Your task to perform on an android device: manage bookmarks in the chrome app Image 0: 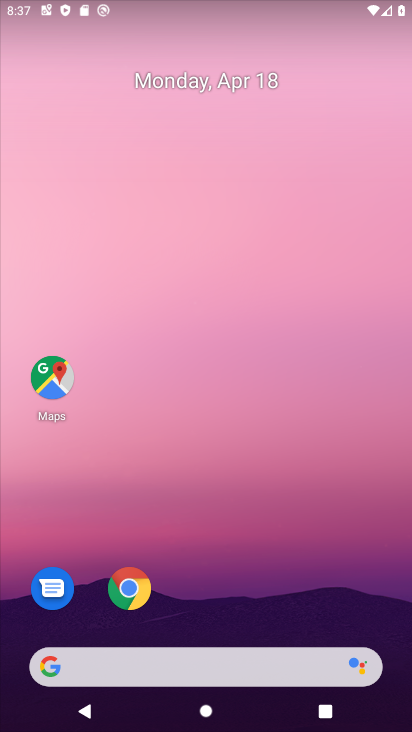
Step 0: drag from (21, 504) to (243, 29)
Your task to perform on an android device: manage bookmarks in the chrome app Image 1: 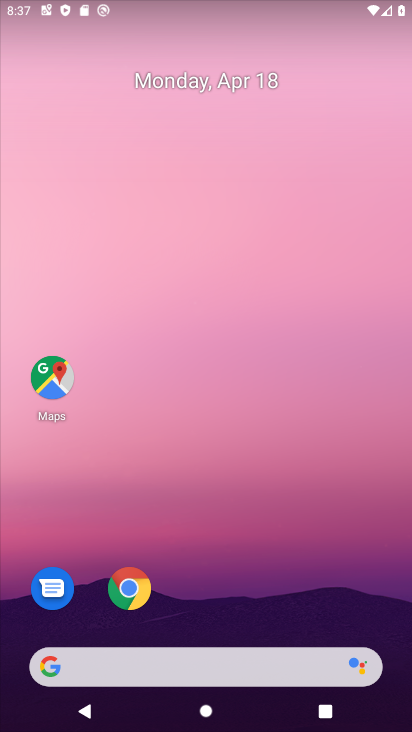
Step 1: drag from (325, 554) to (271, 159)
Your task to perform on an android device: manage bookmarks in the chrome app Image 2: 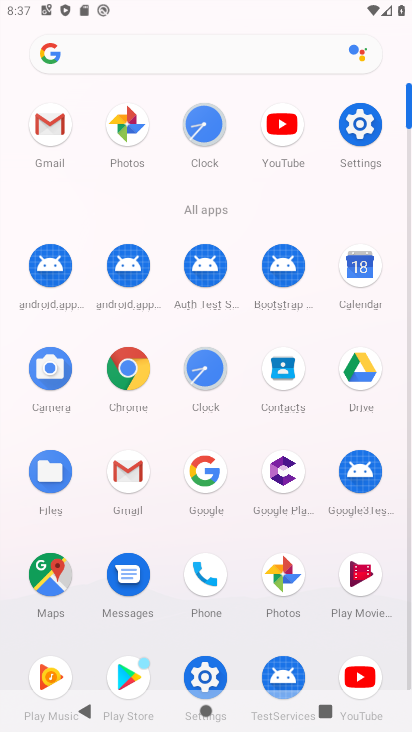
Step 2: click (114, 362)
Your task to perform on an android device: manage bookmarks in the chrome app Image 3: 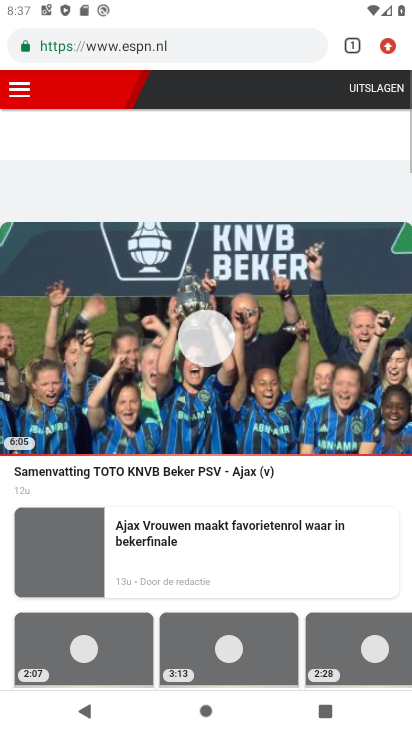
Step 3: press back button
Your task to perform on an android device: manage bookmarks in the chrome app Image 4: 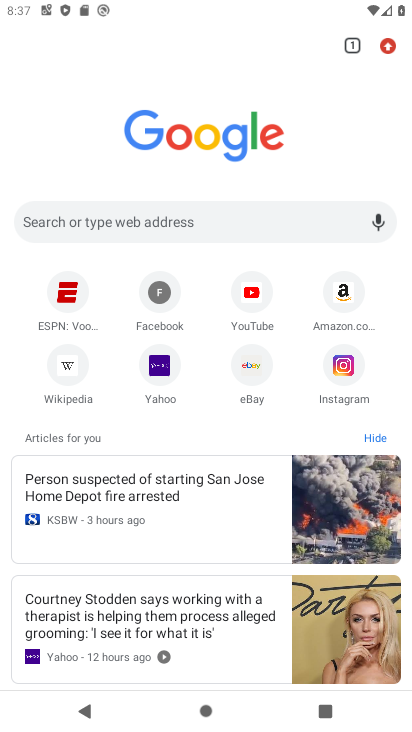
Step 4: click (390, 44)
Your task to perform on an android device: manage bookmarks in the chrome app Image 5: 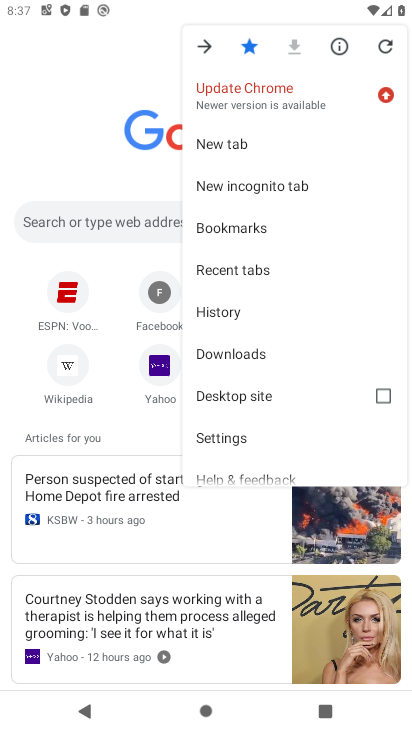
Step 5: click (254, 237)
Your task to perform on an android device: manage bookmarks in the chrome app Image 6: 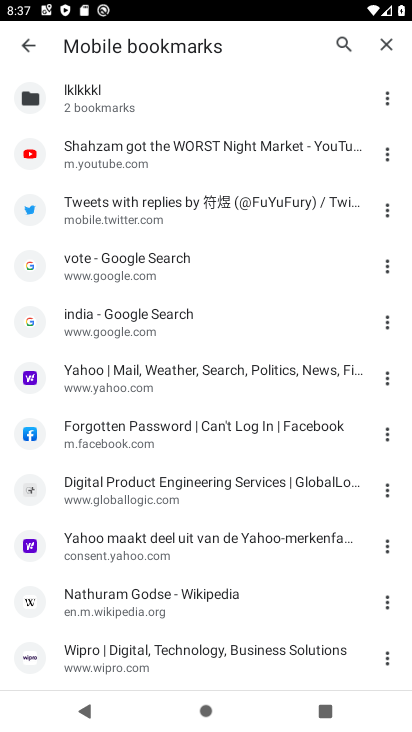
Step 6: task complete